Your task to perform on an android device: Open my contact list Image 0: 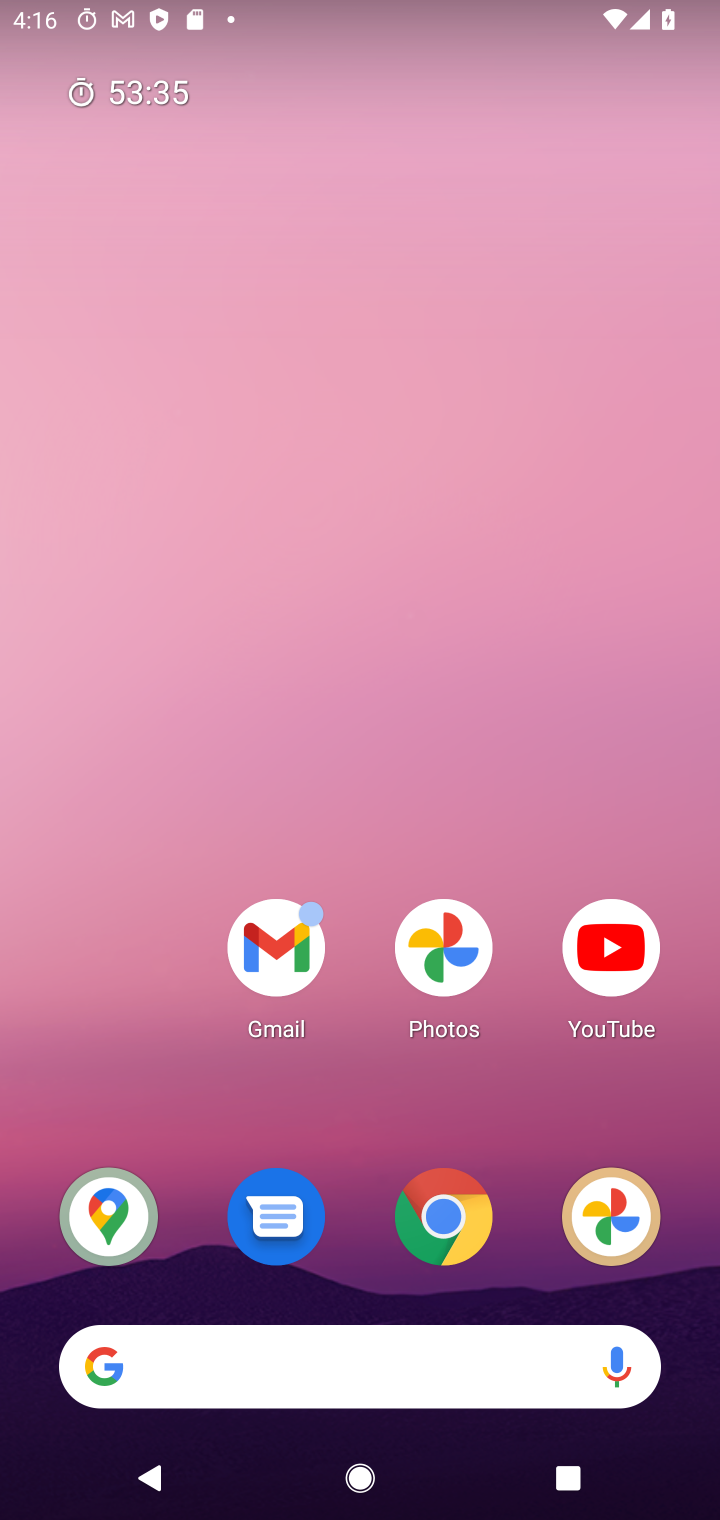
Step 0: drag from (13, 1482) to (490, 233)
Your task to perform on an android device: Open my contact list Image 1: 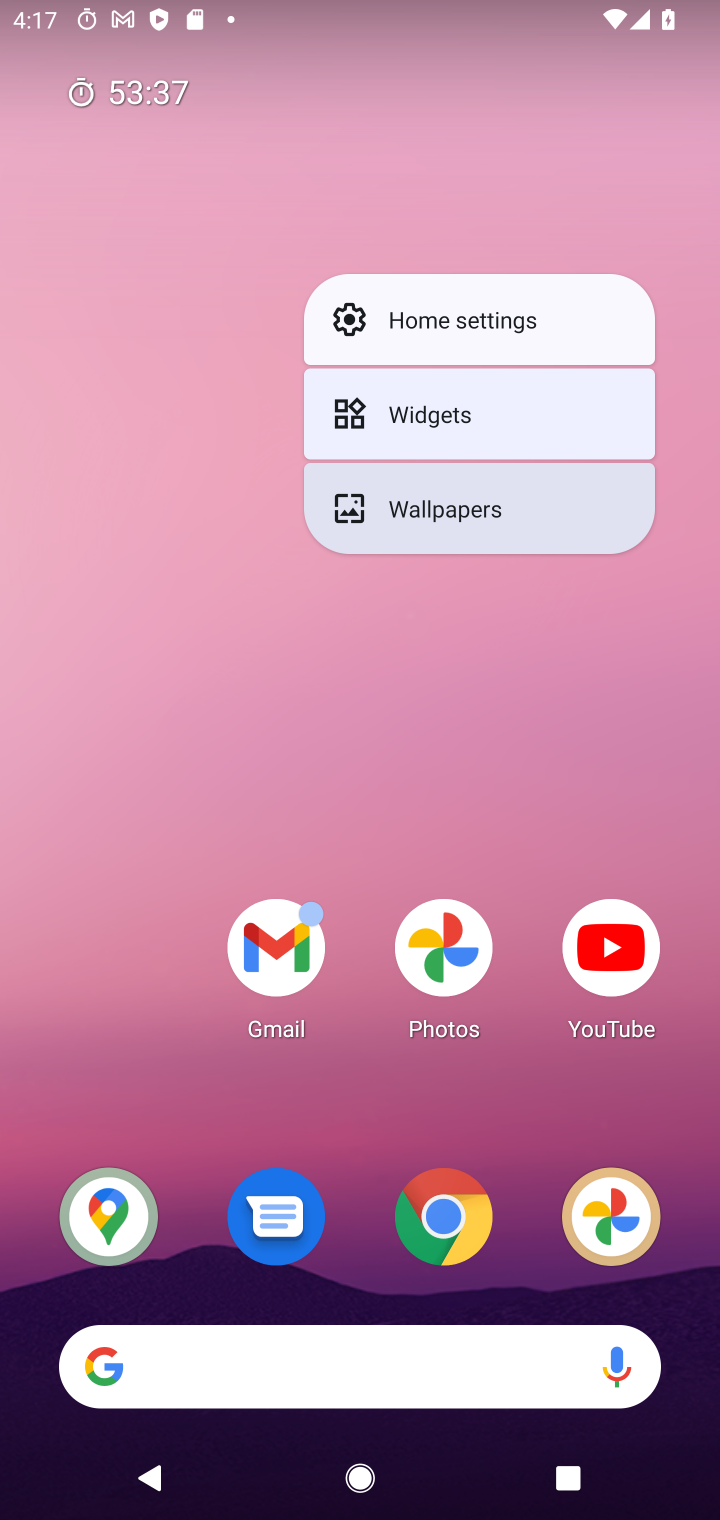
Step 1: click (173, 577)
Your task to perform on an android device: Open my contact list Image 2: 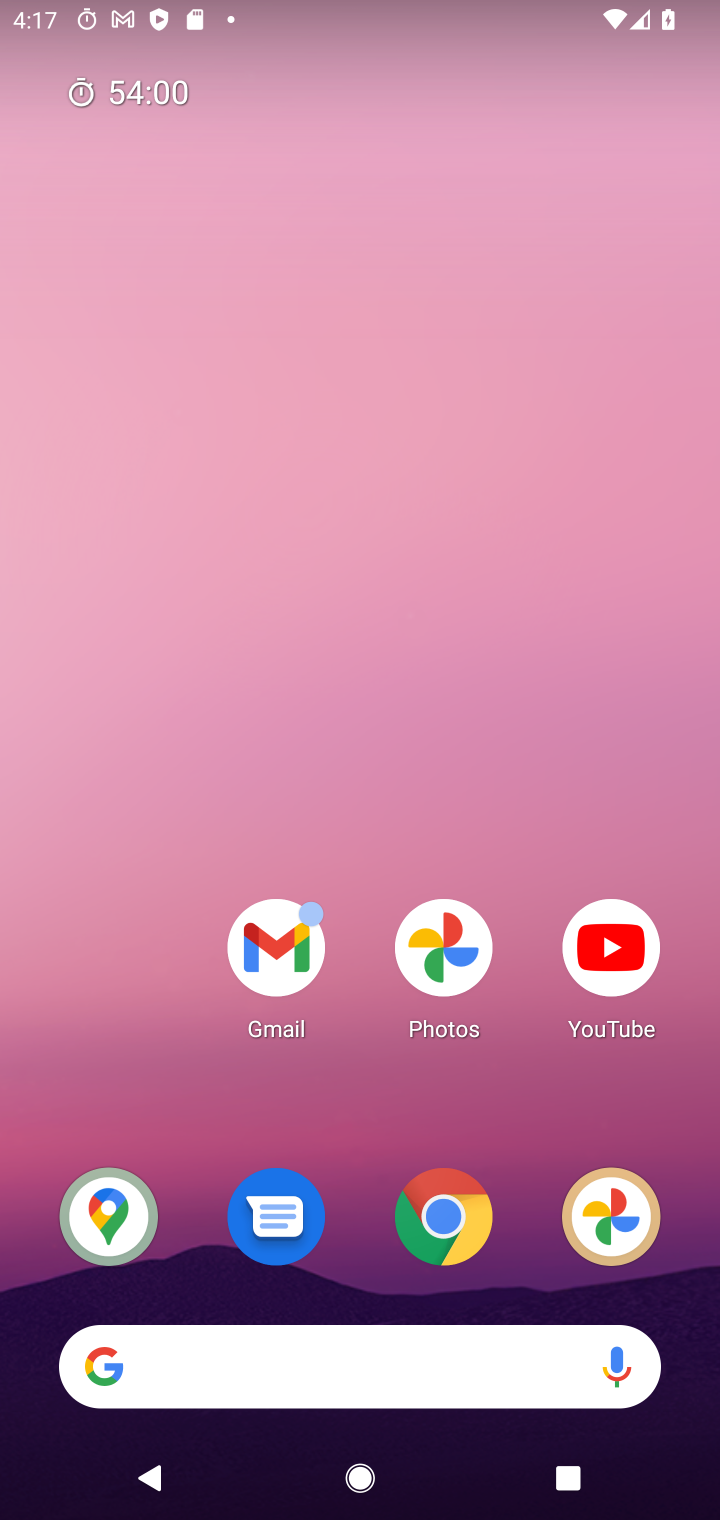
Step 2: drag from (30, 1069) to (410, 163)
Your task to perform on an android device: Open my contact list Image 3: 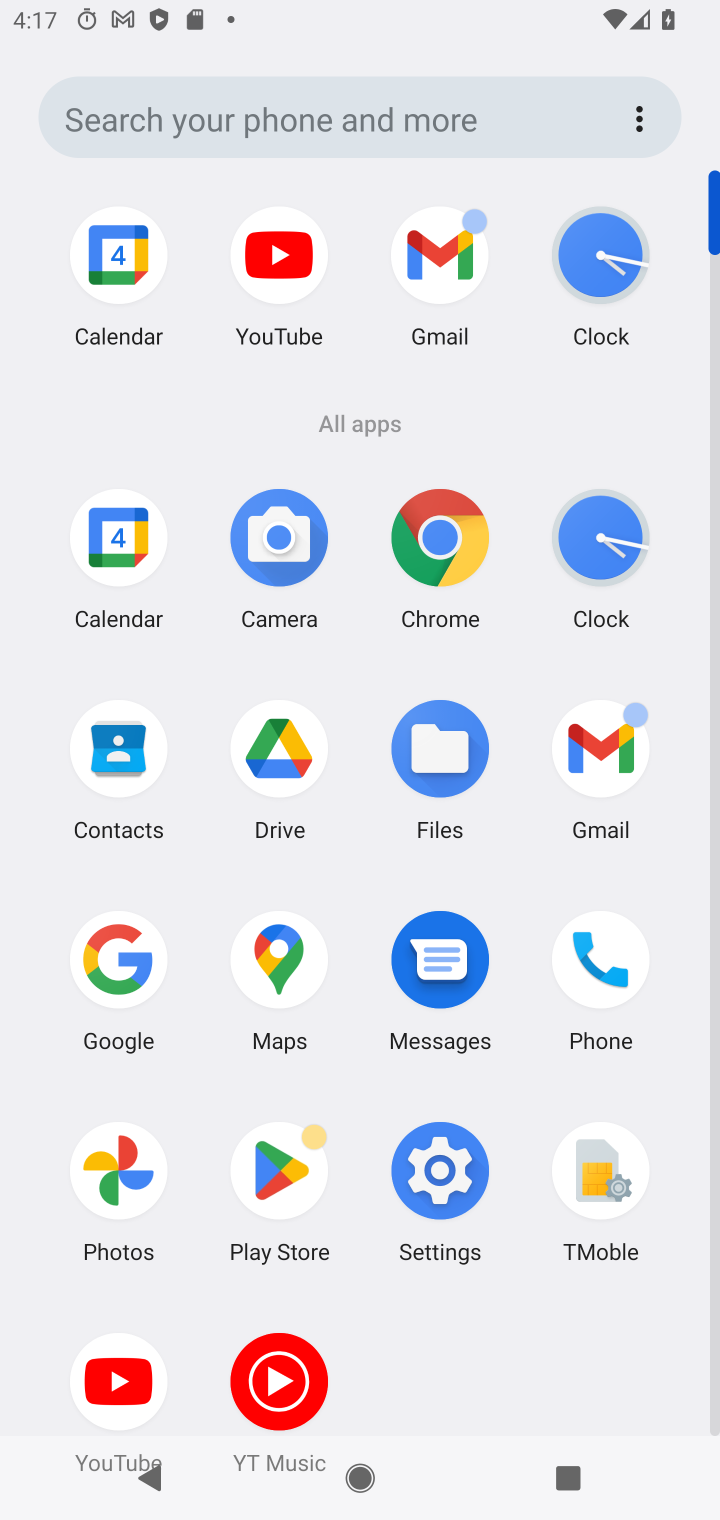
Step 3: click (595, 966)
Your task to perform on an android device: Open my contact list Image 4: 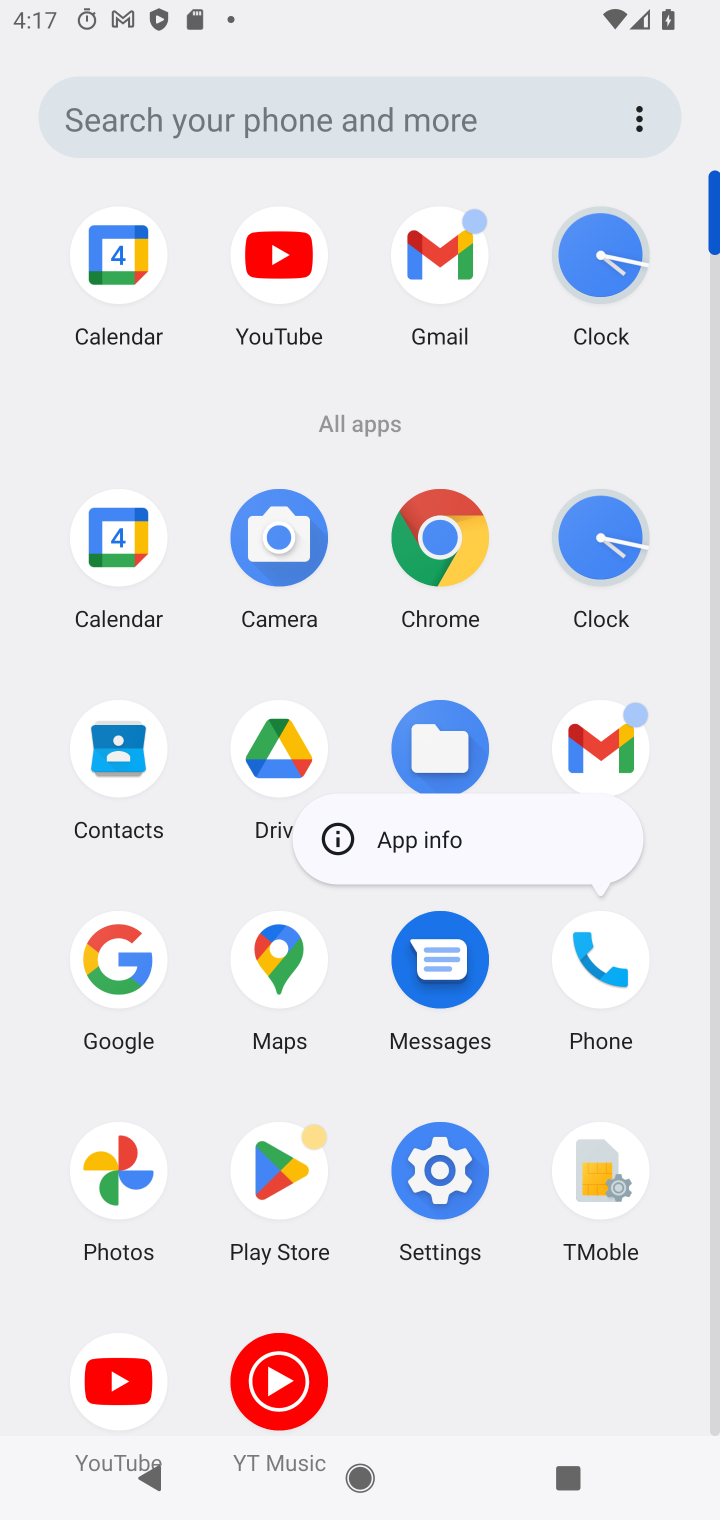
Step 4: click (595, 966)
Your task to perform on an android device: Open my contact list Image 5: 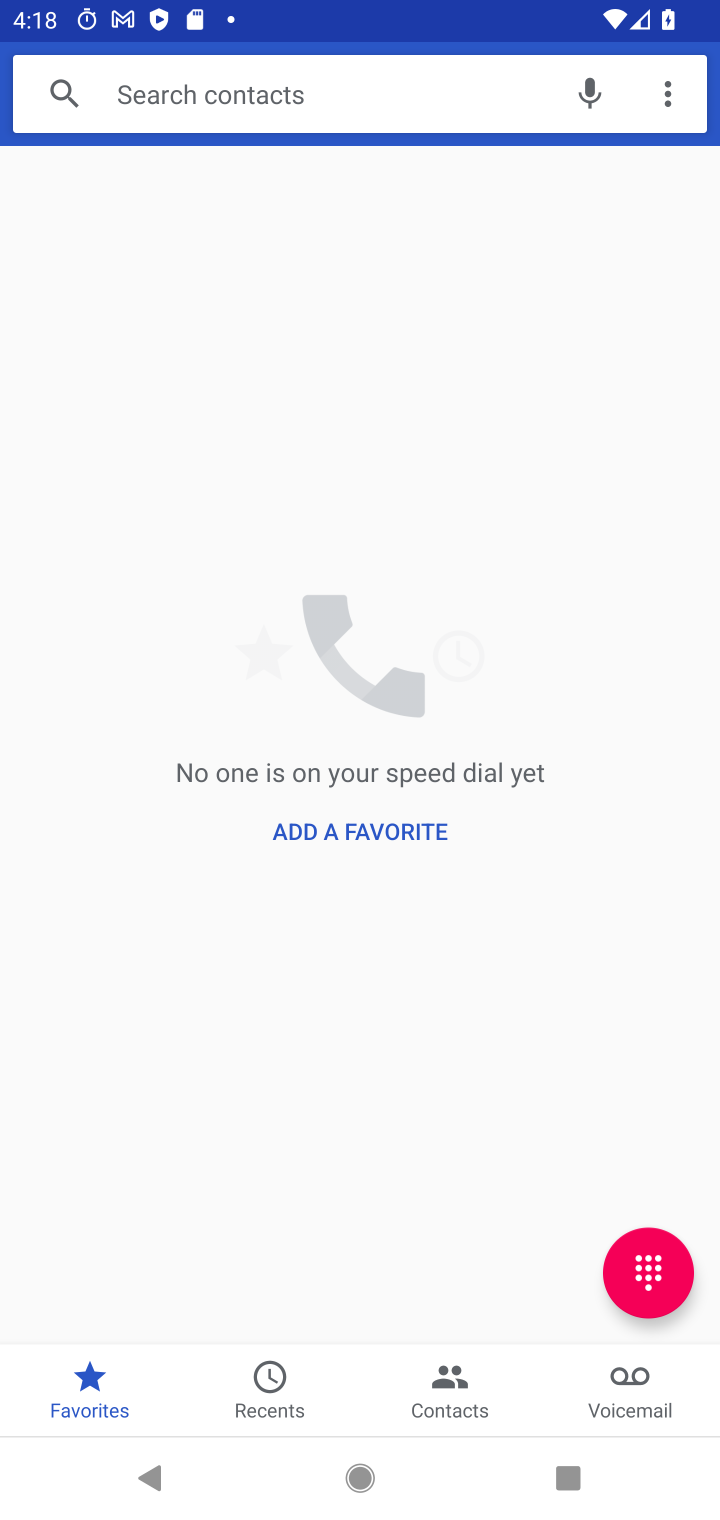
Step 5: click (475, 1351)
Your task to perform on an android device: Open my contact list Image 6: 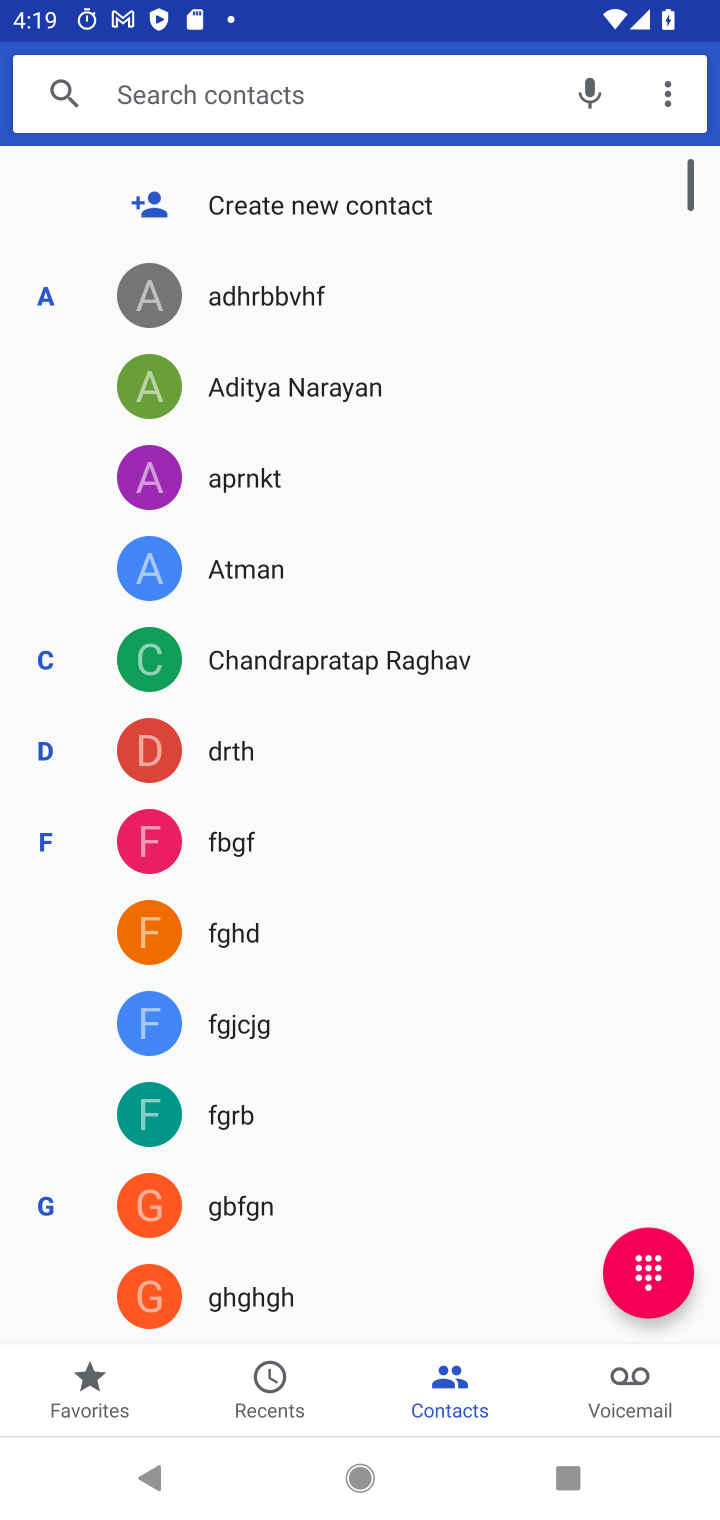
Step 6: task complete